Your task to perform on an android device: Open privacy settings Image 0: 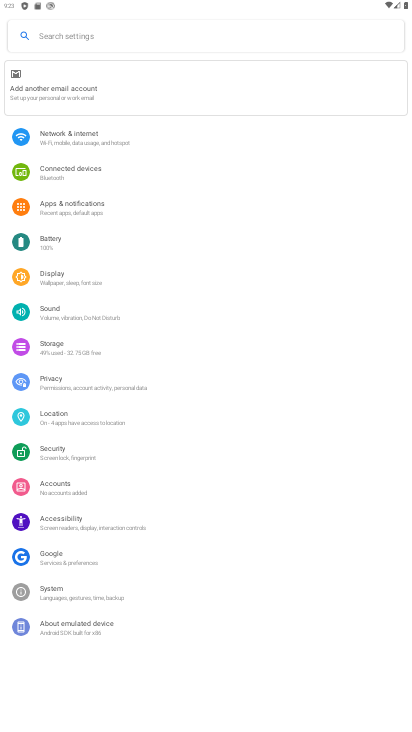
Step 0: click (45, 373)
Your task to perform on an android device: Open privacy settings Image 1: 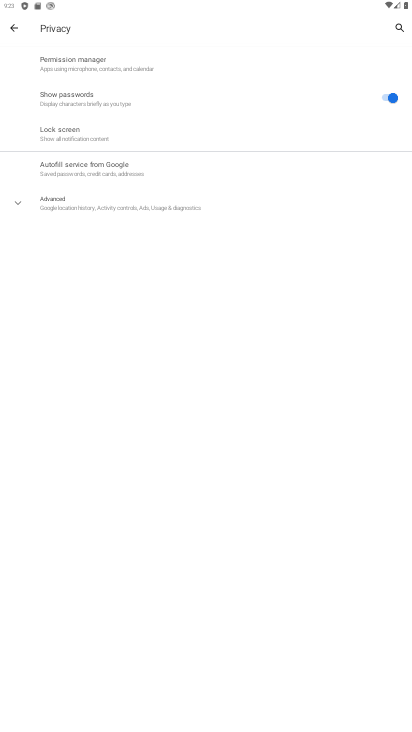
Step 1: click (14, 204)
Your task to perform on an android device: Open privacy settings Image 2: 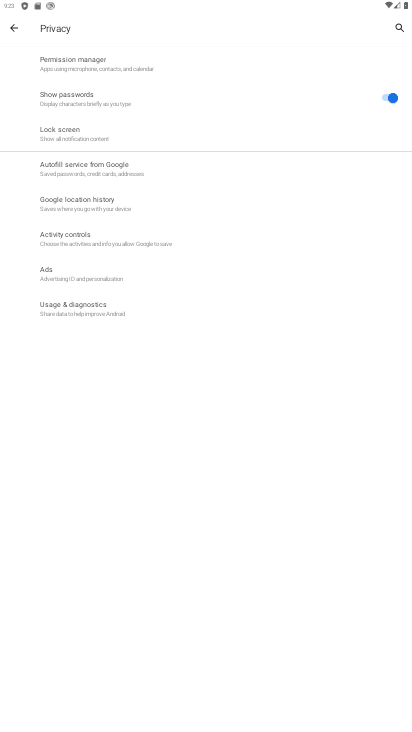
Step 2: task complete